Your task to perform on an android device: Search for vegetarian restaurants on Maps Image 0: 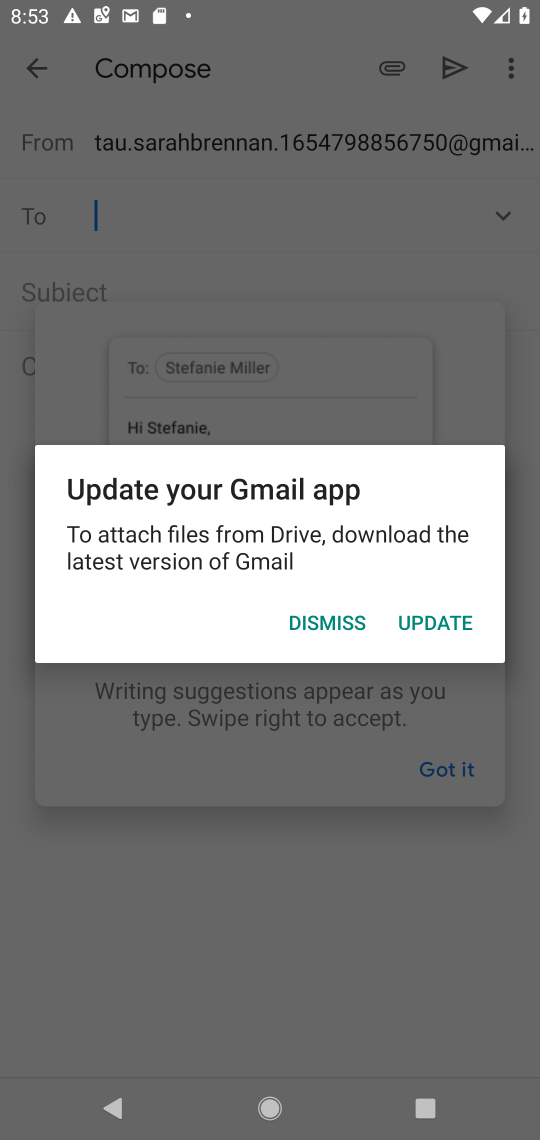
Step 0: press home button
Your task to perform on an android device: Search for vegetarian restaurants on Maps Image 1: 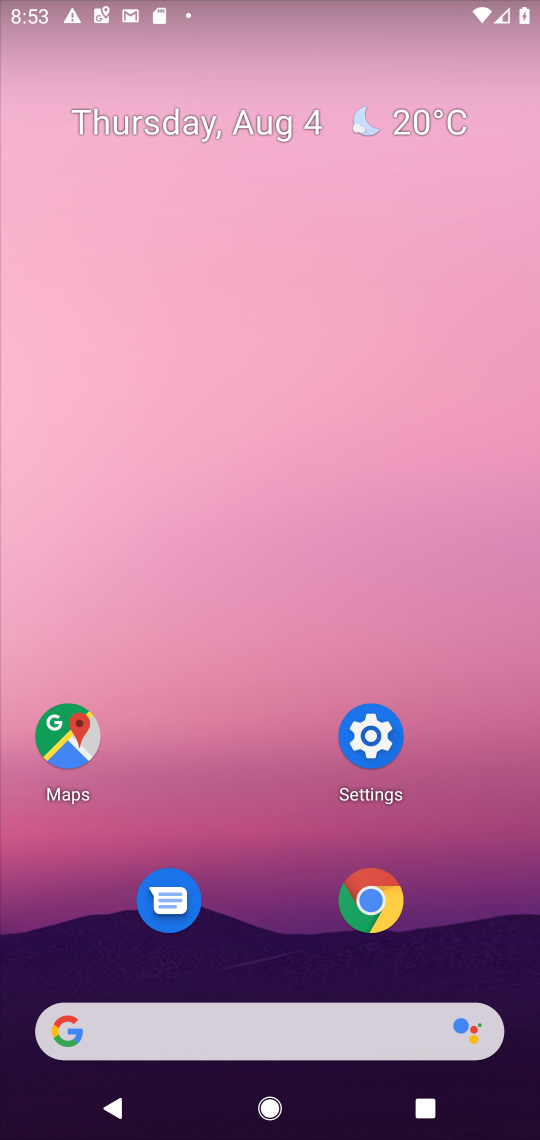
Step 1: click (61, 741)
Your task to perform on an android device: Search for vegetarian restaurants on Maps Image 2: 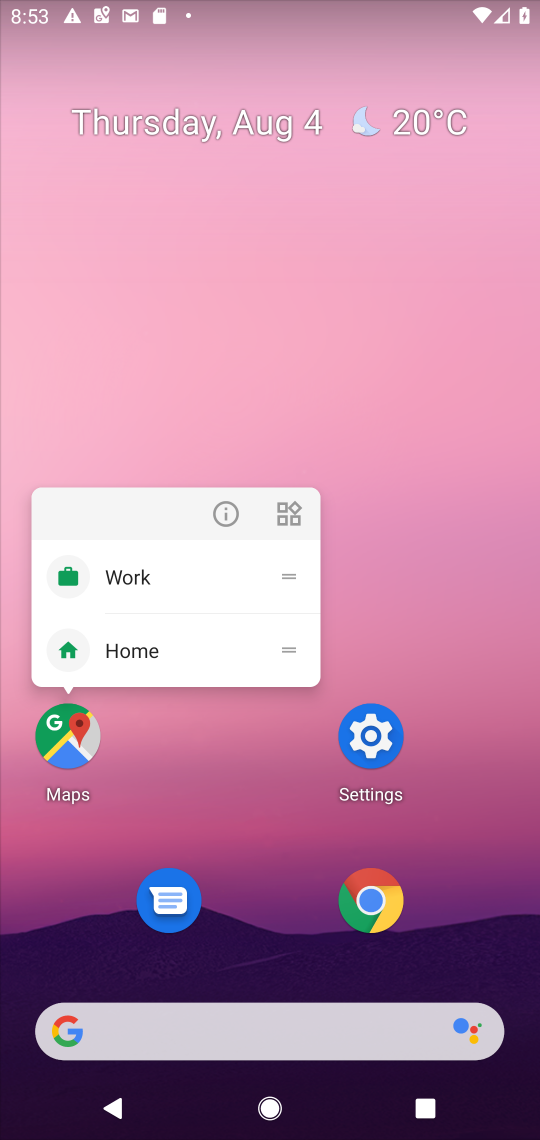
Step 2: click (61, 741)
Your task to perform on an android device: Search for vegetarian restaurants on Maps Image 3: 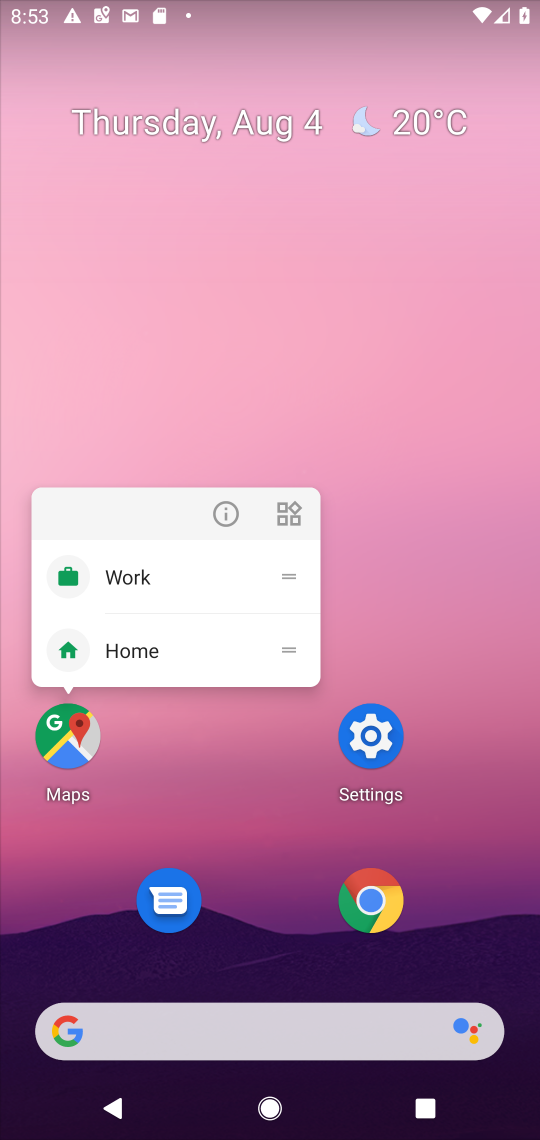
Step 3: click (58, 745)
Your task to perform on an android device: Search for vegetarian restaurants on Maps Image 4: 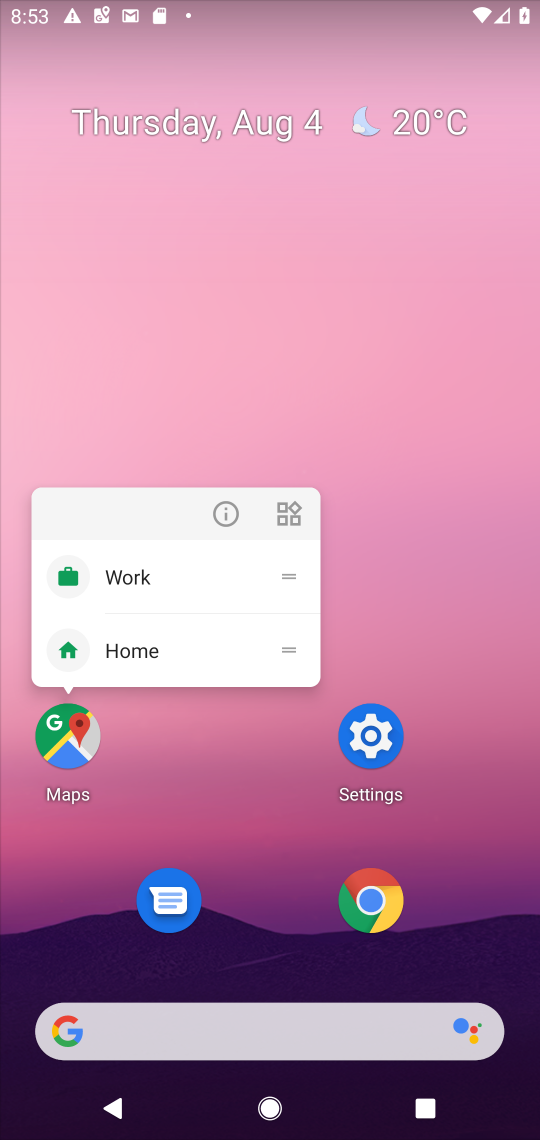
Step 4: click (58, 749)
Your task to perform on an android device: Search for vegetarian restaurants on Maps Image 5: 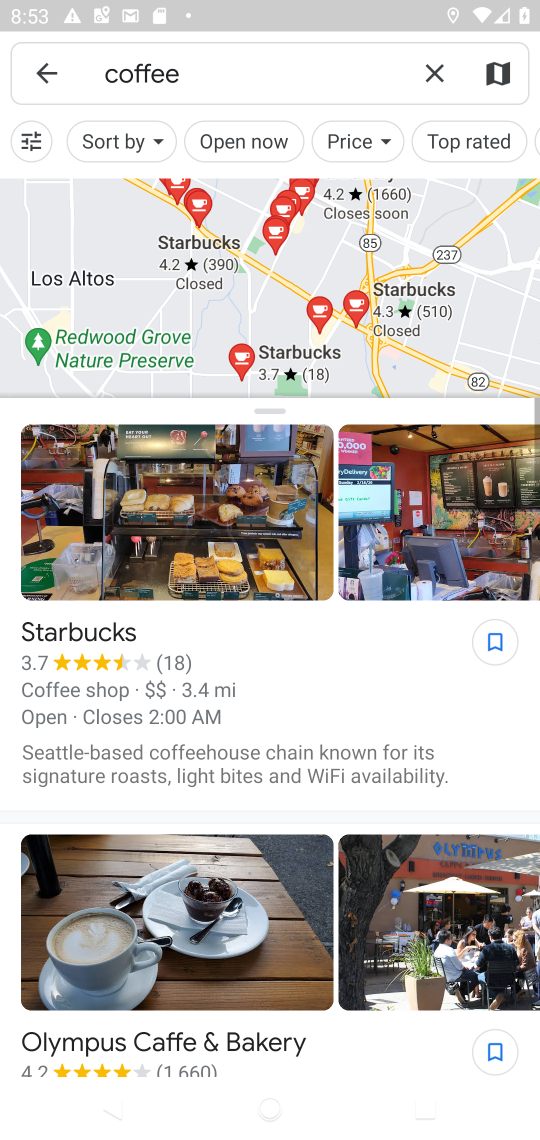
Step 5: click (427, 64)
Your task to perform on an android device: Search for vegetarian restaurants on Maps Image 6: 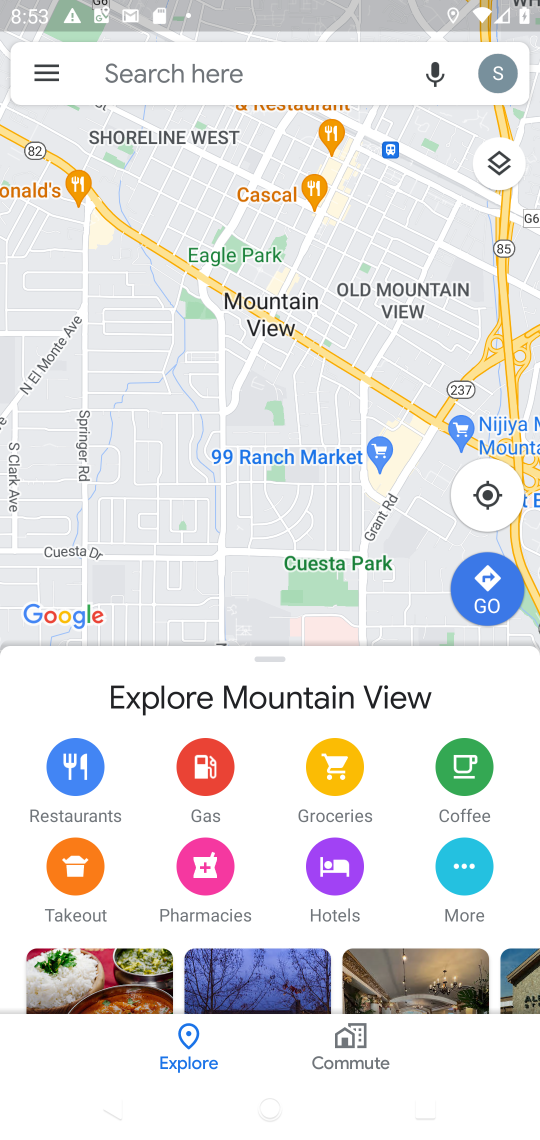
Step 6: click (284, 84)
Your task to perform on an android device: Search for vegetarian restaurants on Maps Image 7: 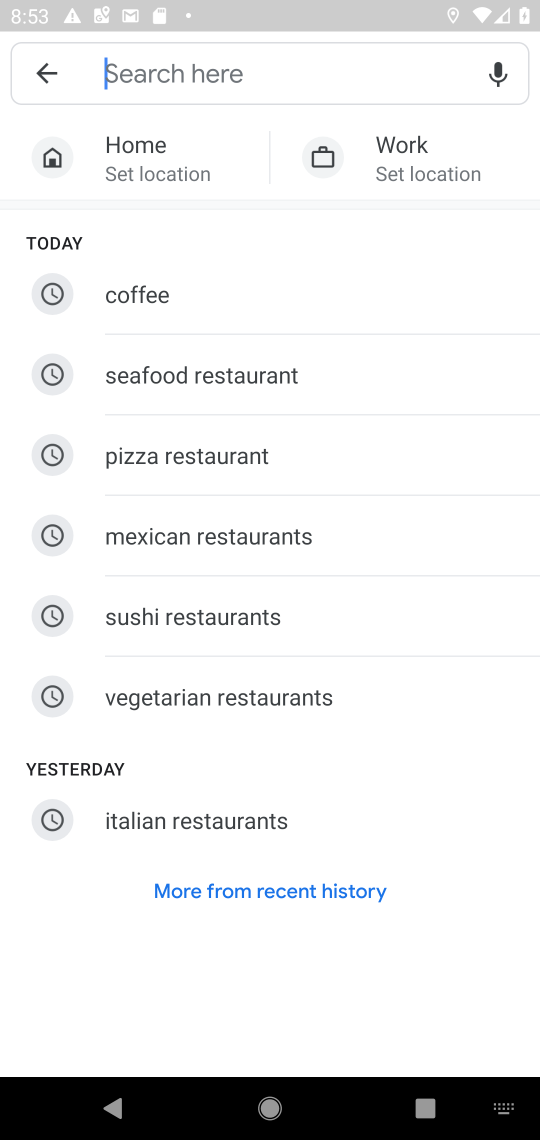
Step 7: click (206, 694)
Your task to perform on an android device: Search for vegetarian restaurants on Maps Image 8: 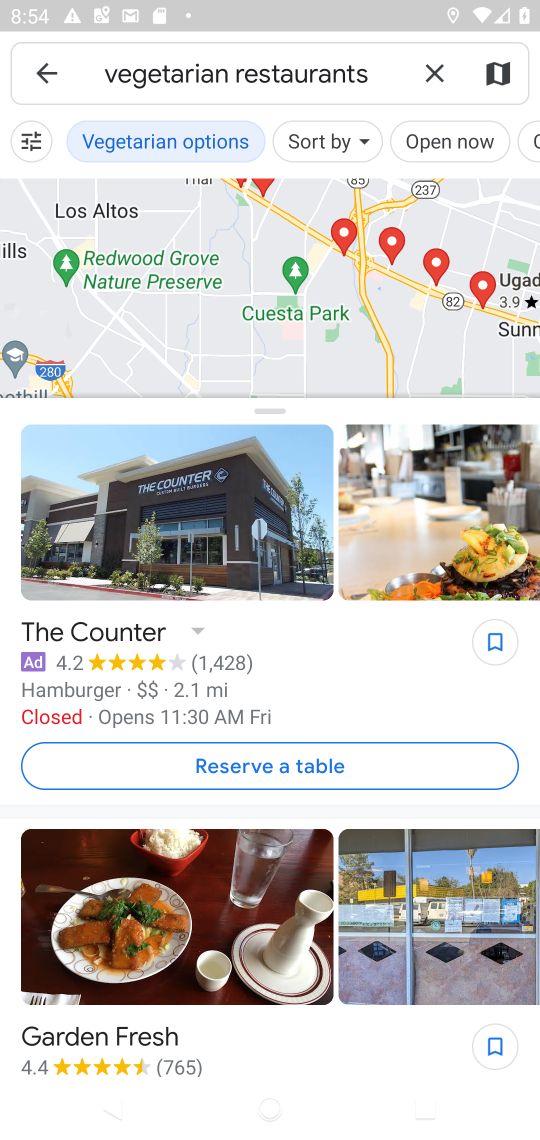
Step 8: task complete